Your task to perform on an android device: Open display settings Image 0: 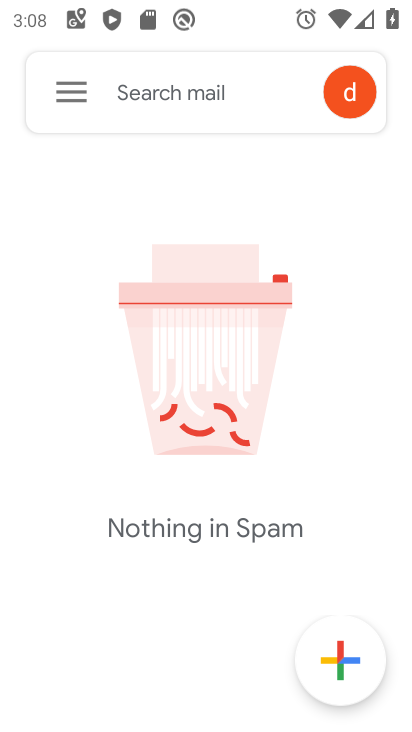
Step 0: press home button
Your task to perform on an android device: Open display settings Image 1: 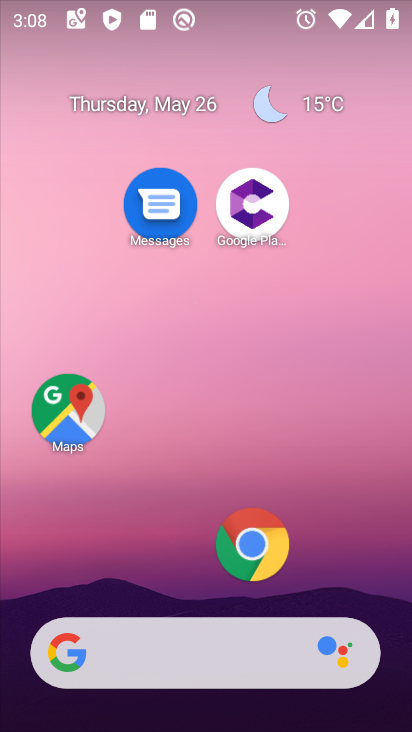
Step 1: drag from (172, 592) to (120, 171)
Your task to perform on an android device: Open display settings Image 2: 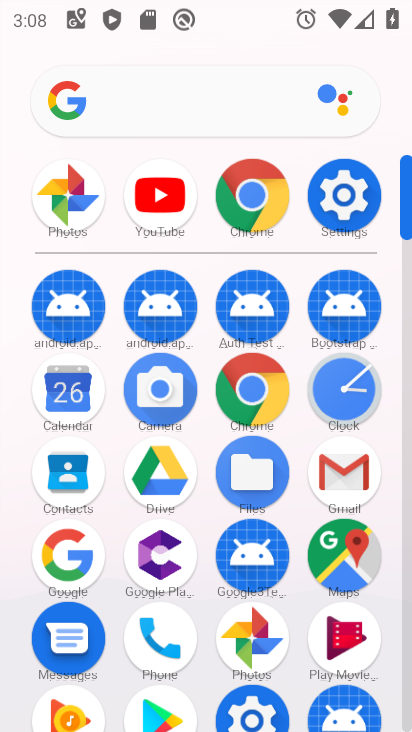
Step 2: click (359, 192)
Your task to perform on an android device: Open display settings Image 3: 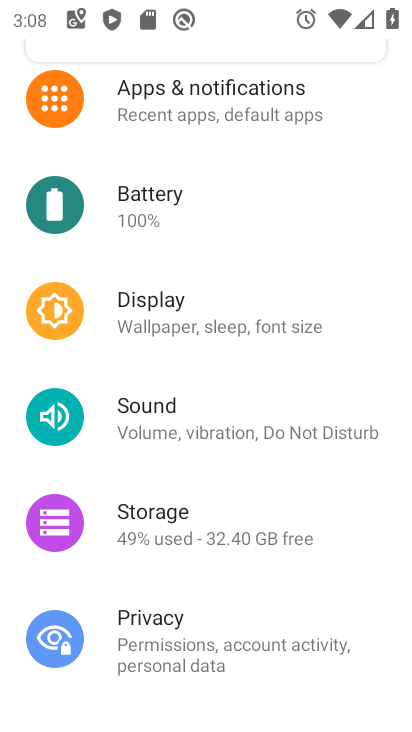
Step 3: click (149, 325)
Your task to perform on an android device: Open display settings Image 4: 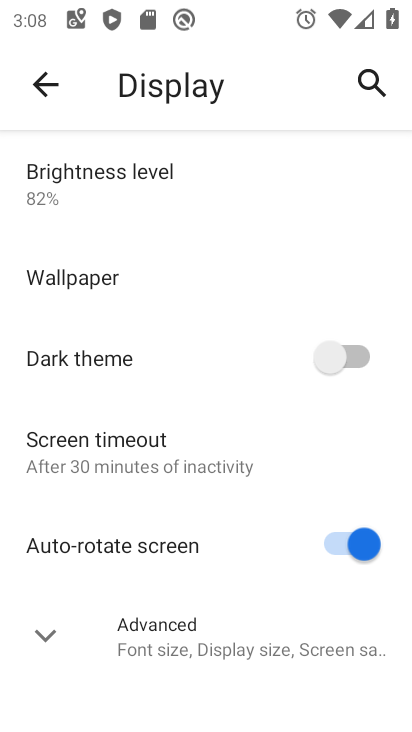
Step 4: task complete